Your task to perform on an android device: Go to Google Image 0: 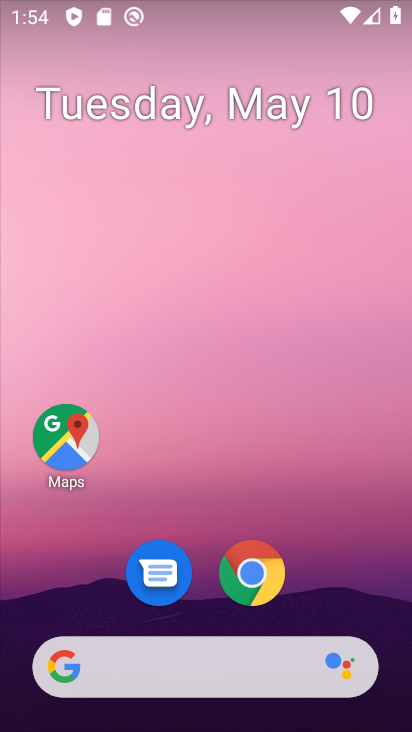
Step 0: click (212, 668)
Your task to perform on an android device: Go to Google Image 1: 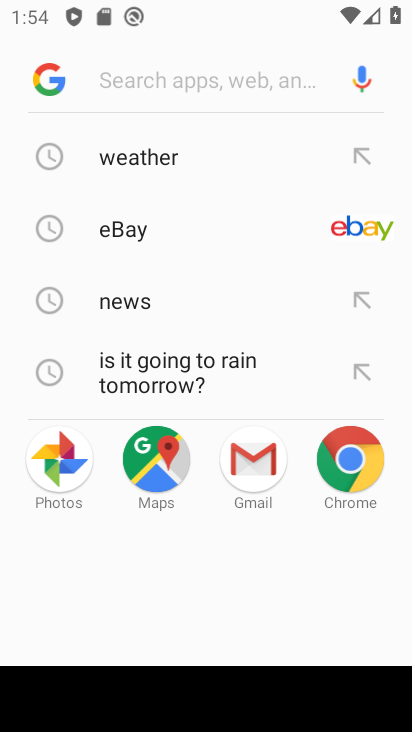
Step 1: click (57, 87)
Your task to perform on an android device: Go to Google Image 2: 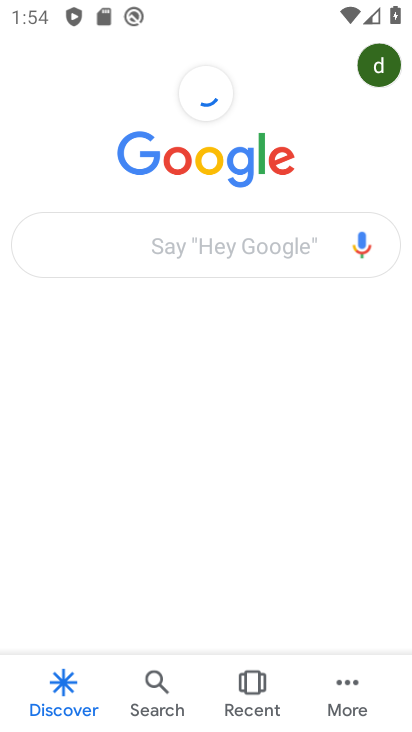
Step 2: task complete